Your task to perform on an android device: Open the web browser Image 0: 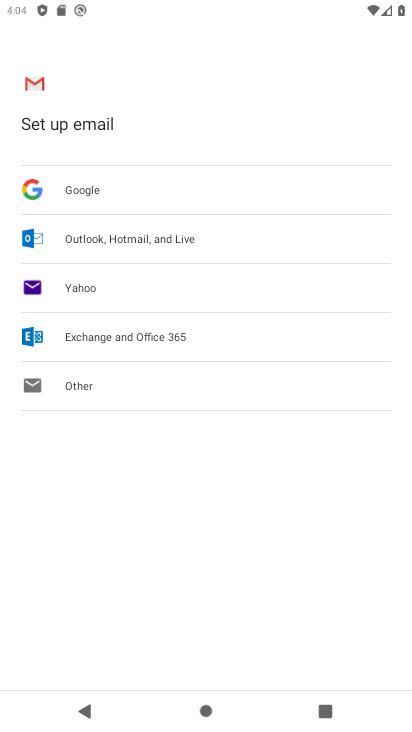
Step 0: press home button
Your task to perform on an android device: Open the web browser Image 1: 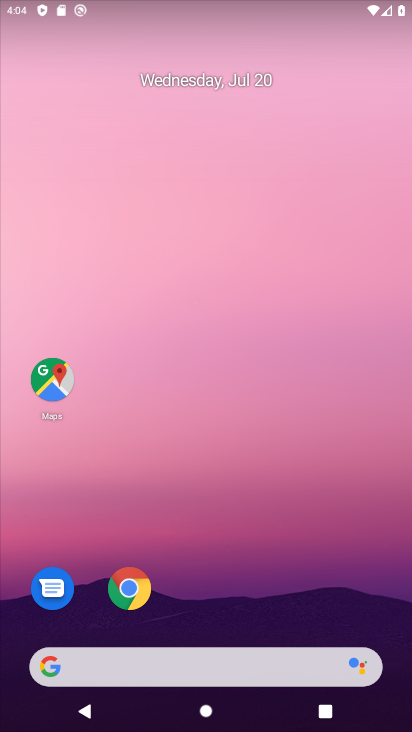
Step 1: drag from (220, 617) to (290, 132)
Your task to perform on an android device: Open the web browser Image 2: 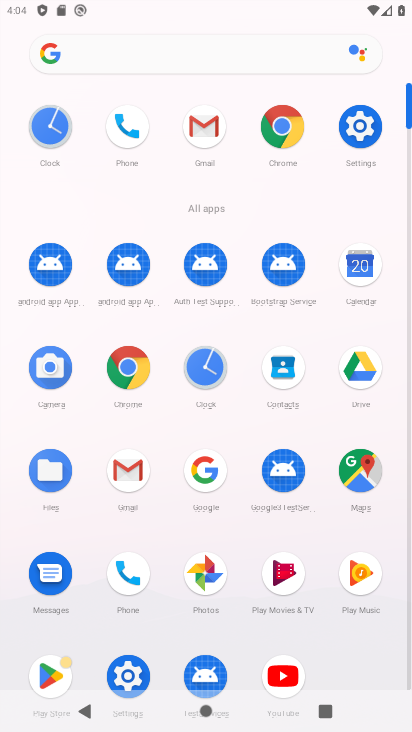
Step 2: click (268, 116)
Your task to perform on an android device: Open the web browser Image 3: 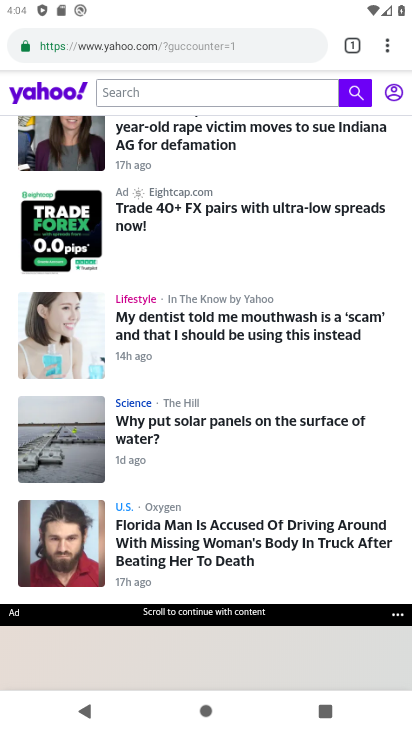
Step 3: task complete